Your task to perform on an android device: change notification settings in the gmail app Image 0: 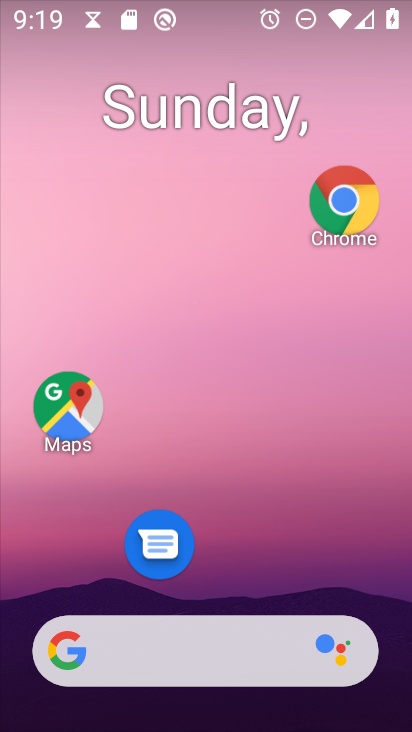
Step 0: drag from (314, 565) to (301, 61)
Your task to perform on an android device: change notification settings in the gmail app Image 1: 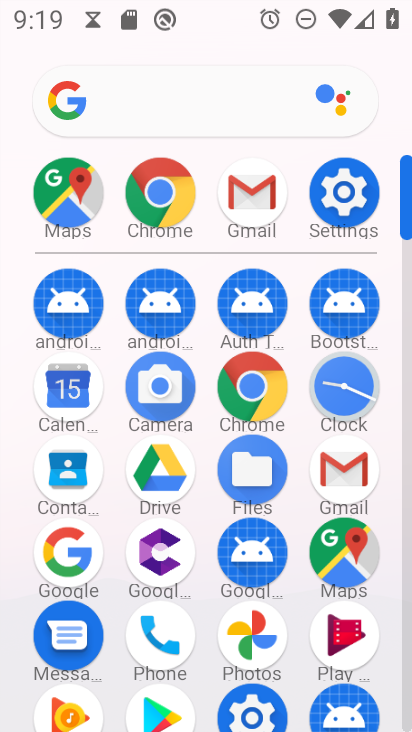
Step 1: click (337, 450)
Your task to perform on an android device: change notification settings in the gmail app Image 2: 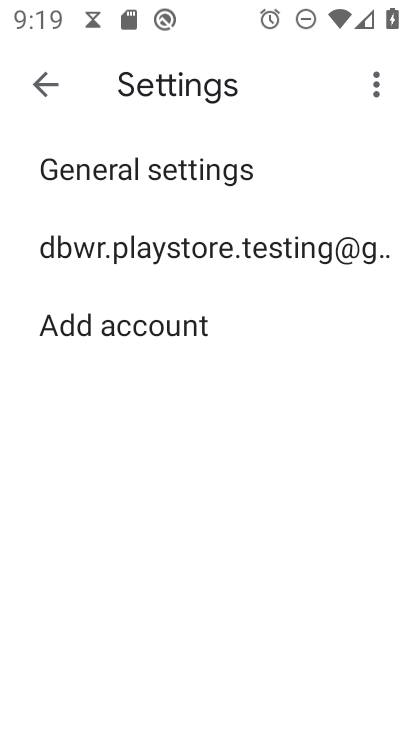
Step 2: click (68, 250)
Your task to perform on an android device: change notification settings in the gmail app Image 3: 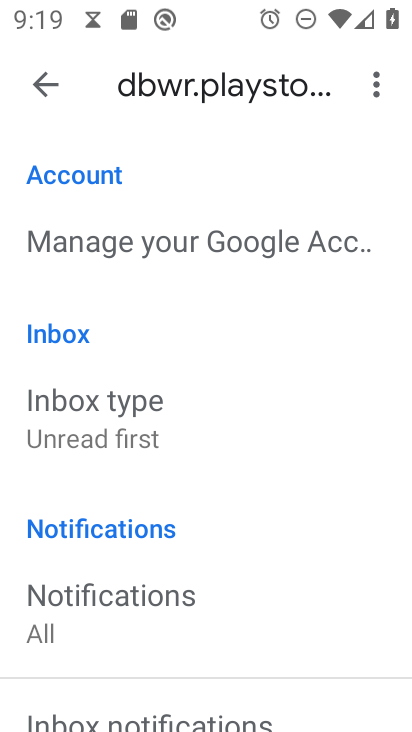
Step 3: drag from (193, 616) to (220, 269)
Your task to perform on an android device: change notification settings in the gmail app Image 4: 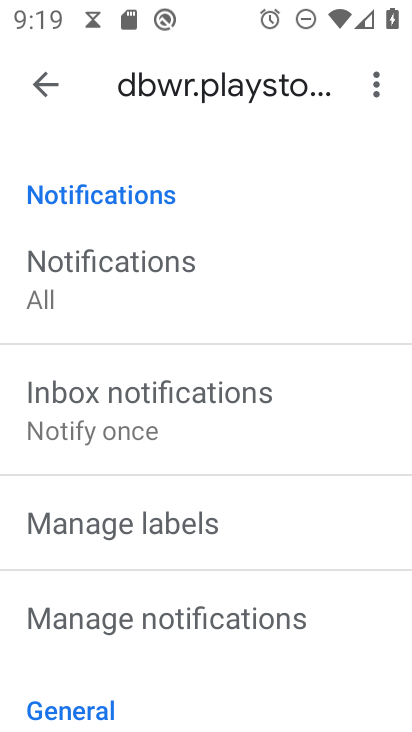
Step 4: click (216, 605)
Your task to perform on an android device: change notification settings in the gmail app Image 5: 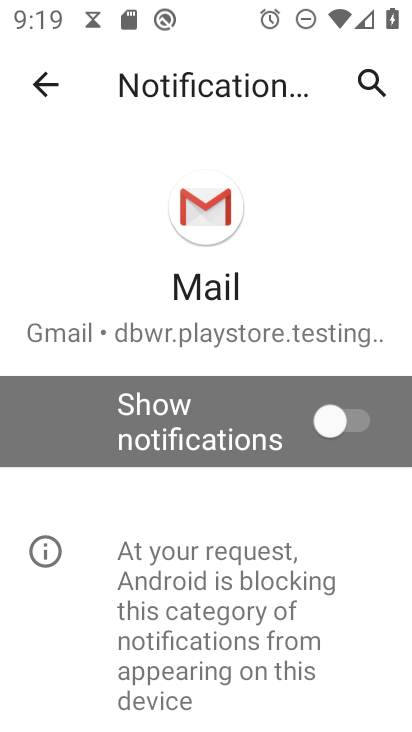
Step 5: click (354, 423)
Your task to perform on an android device: change notification settings in the gmail app Image 6: 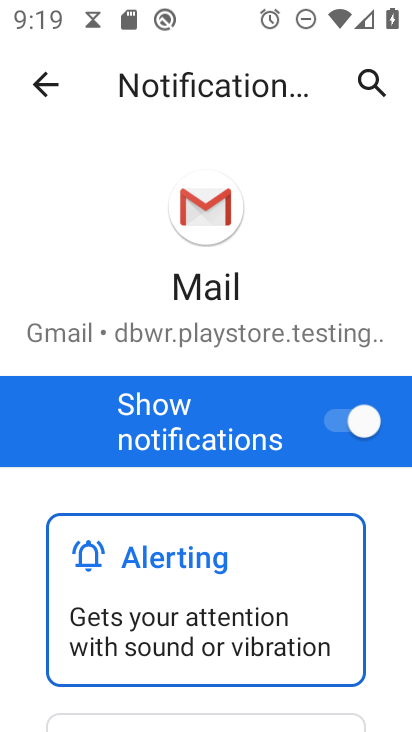
Step 6: click (50, 97)
Your task to perform on an android device: change notification settings in the gmail app Image 7: 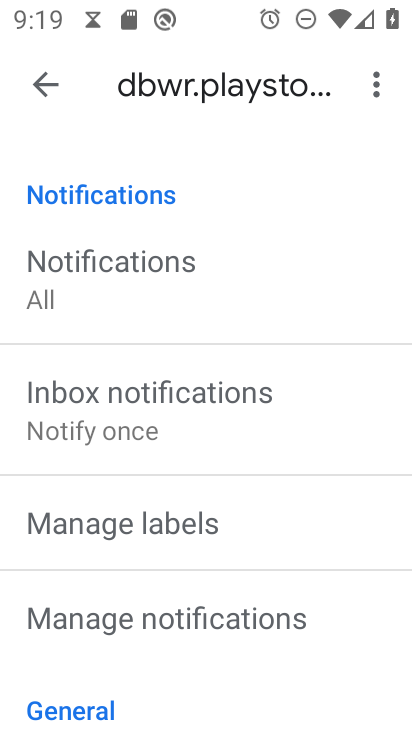
Step 7: task complete